Your task to perform on an android device: Open Maps and search for coffee Image 0: 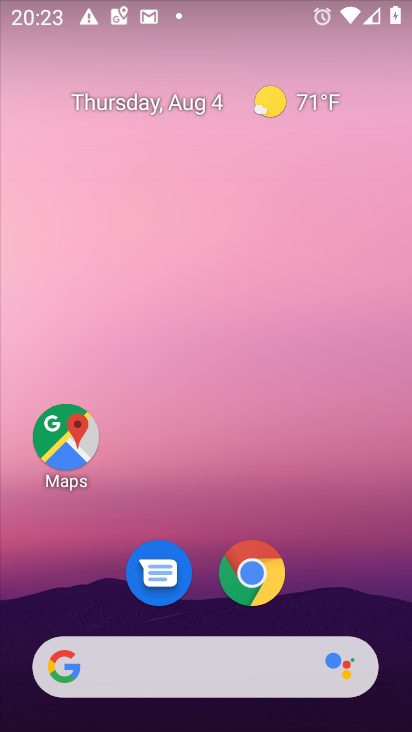
Step 0: click (61, 434)
Your task to perform on an android device: Open Maps and search for coffee Image 1: 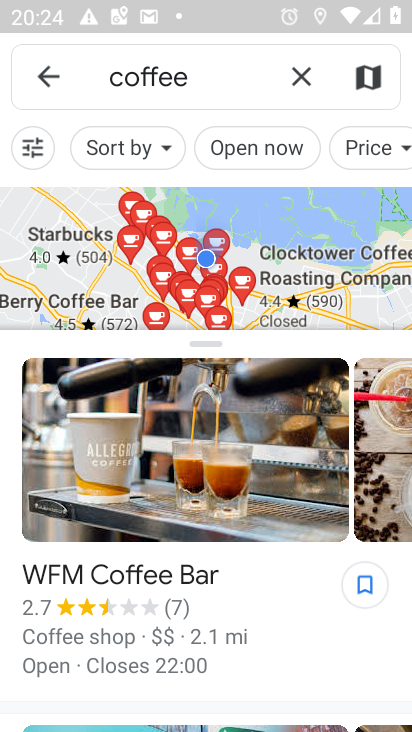
Step 1: task complete